Your task to perform on an android device: open chrome and create a bookmark for the current page Image 0: 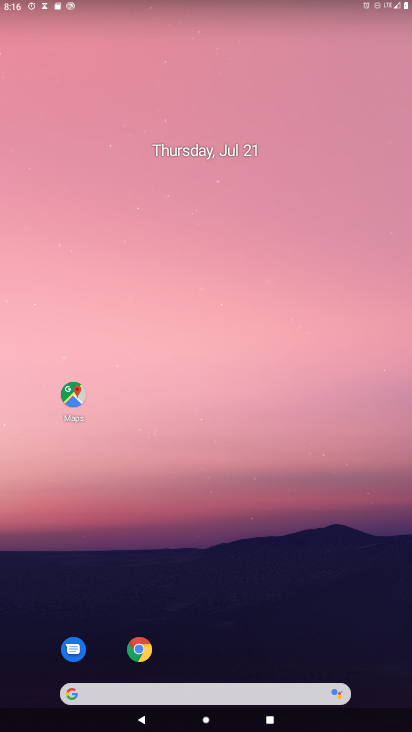
Step 0: drag from (348, 626) to (177, 171)
Your task to perform on an android device: open chrome and create a bookmark for the current page Image 1: 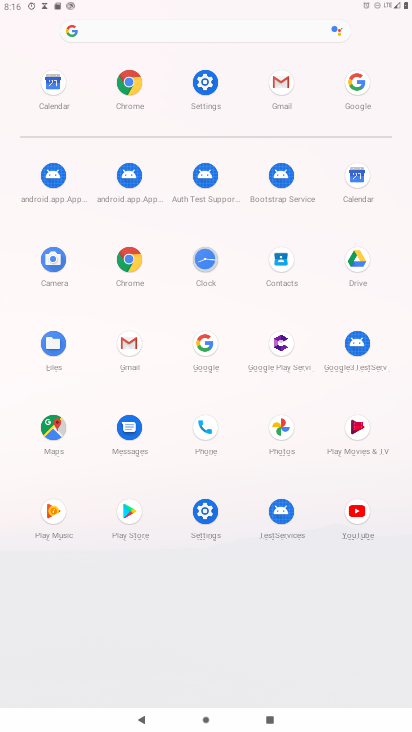
Step 1: click (111, 275)
Your task to perform on an android device: open chrome and create a bookmark for the current page Image 2: 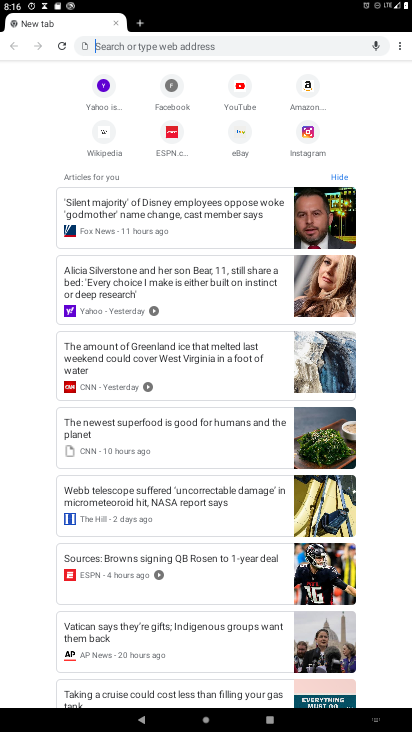
Step 2: click (398, 44)
Your task to perform on an android device: open chrome and create a bookmark for the current page Image 3: 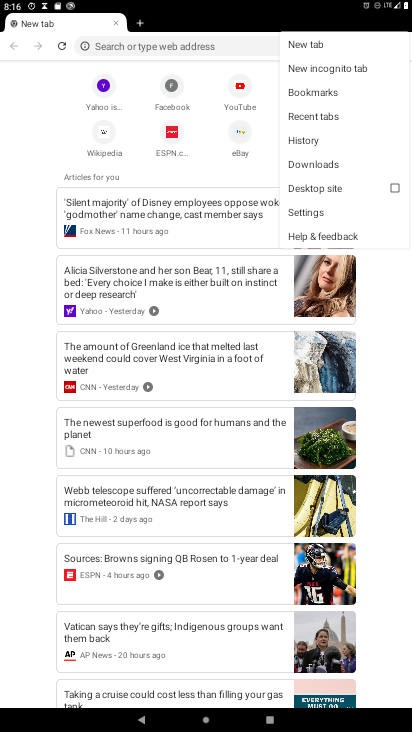
Step 3: click (299, 94)
Your task to perform on an android device: open chrome and create a bookmark for the current page Image 4: 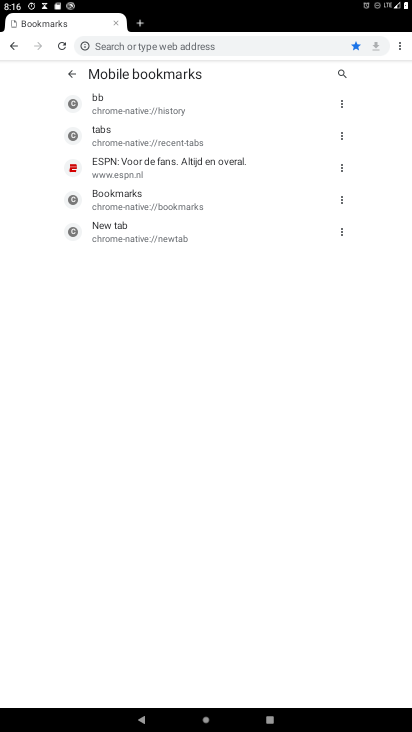
Step 4: task complete